Your task to perform on an android device: What's the news in Uruguay? Image 0: 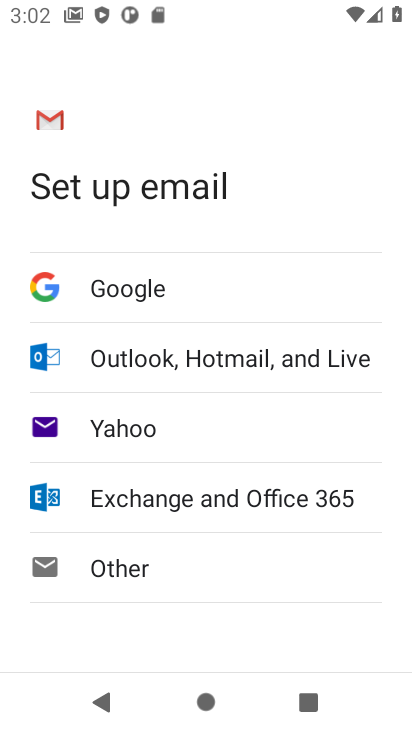
Step 0: press home button
Your task to perform on an android device: What's the news in Uruguay? Image 1: 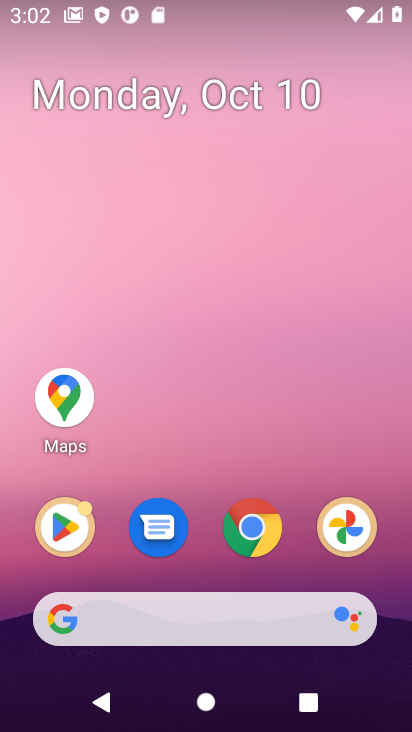
Step 1: click (252, 624)
Your task to perform on an android device: What's the news in Uruguay? Image 2: 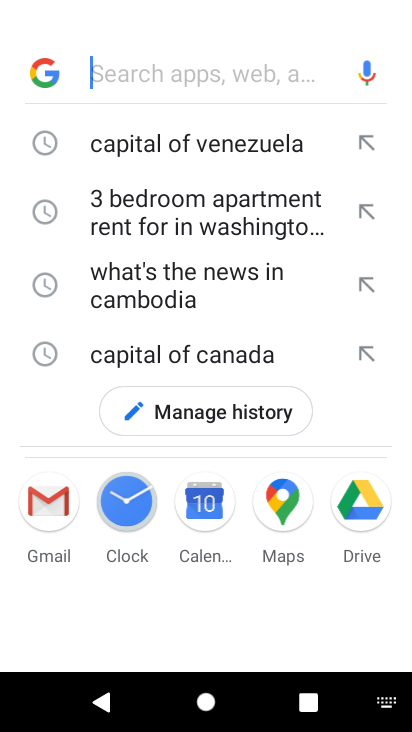
Step 2: type "What's the news in Uruguay"
Your task to perform on an android device: What's the news in Uruguay? Image 3: 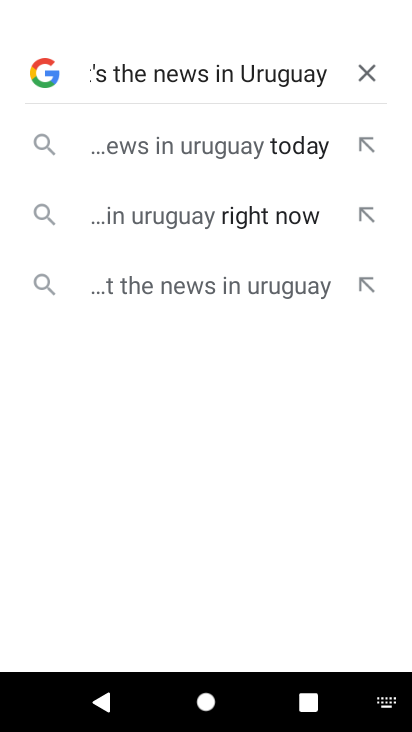
Step 3: press enter
Your task to perform on an android device: What's the news in Uruguay? Image 4: 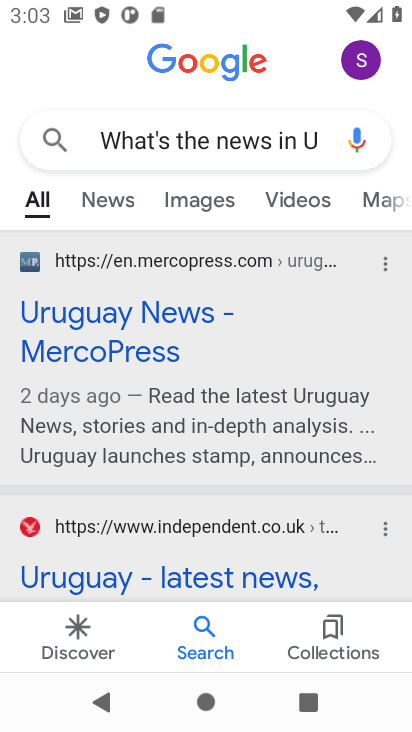
Step 4: click (168, 329)
Your task to perform on an android device: What's the news in Uruguay? Image 5: 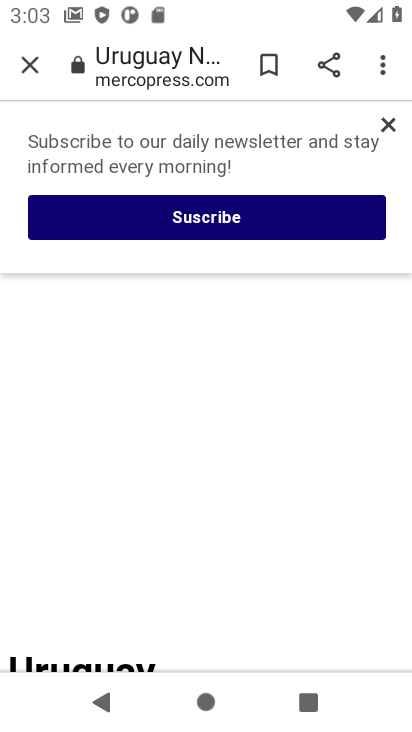
Step 5: drag from (301, 479) to (349, 270)
Your task to perform on an android device: What's the news in Uruguay? Image 6: 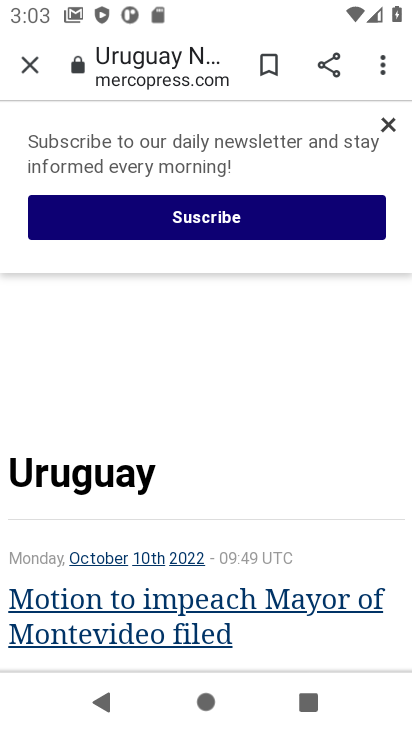
Step 6: click (386, 122)
Your task to perform on an android device: What's the news in Uruguay? Image 7: 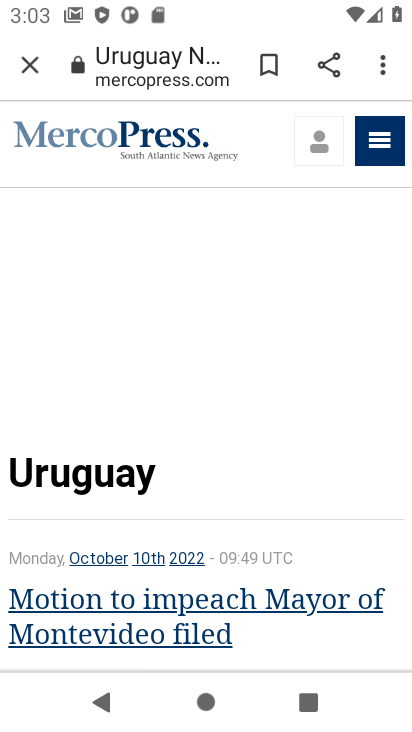
Step 7: task complete